Your task to perform on an android device: remove spam from my inbox in the gmail app Image 0: 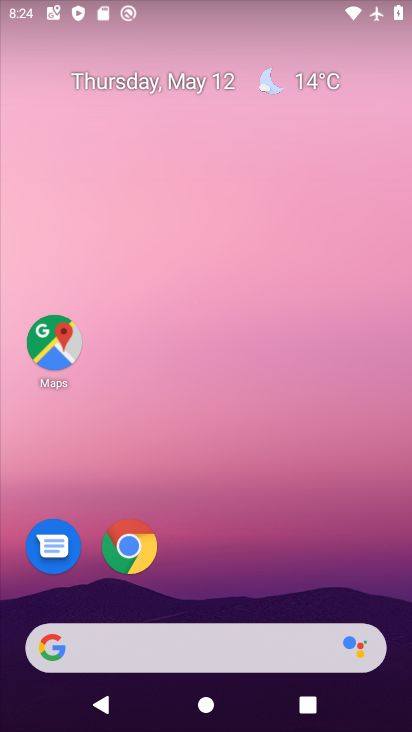
Step 0: drag from (173, 658) to (319, 79)
Your task to perform on an android device: remove spam from my inbox in the gmail app Image 1: 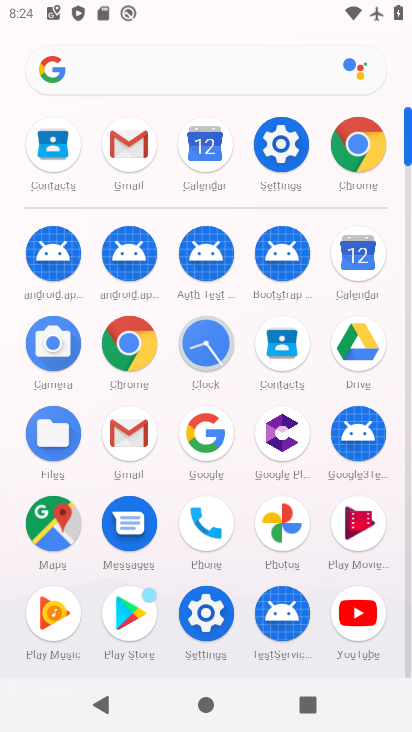
Step 1: click (266, 146)
Your task to perform on an android device: remove spam from my inbox in the gmail app Image 2: 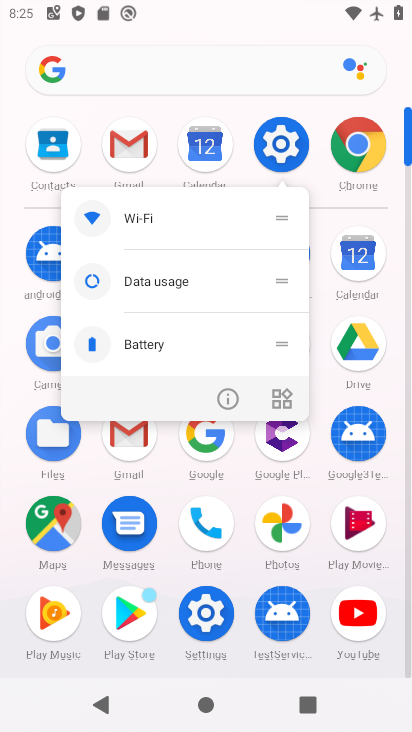
Step 2: click (139, 148)
Your task to perform on an android device: remove spam from my inbox in the gmail app Image 3: 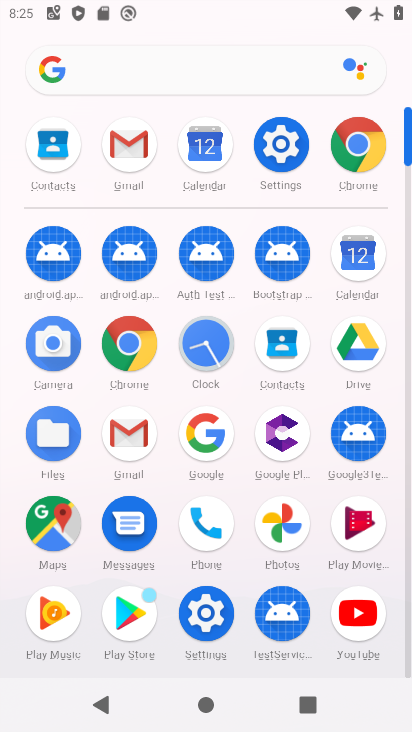
Step 3: click (129, 151)
Your task to perform on an android device: remove spam from my inbox in the gmail app Image 4: 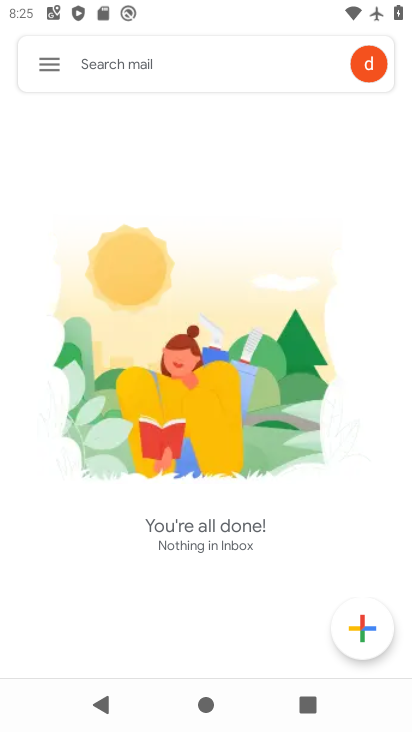
Step 4: click (58, 69)
Your task to perform on an android device: remove spam from my inbox in the gmail app Image 5: 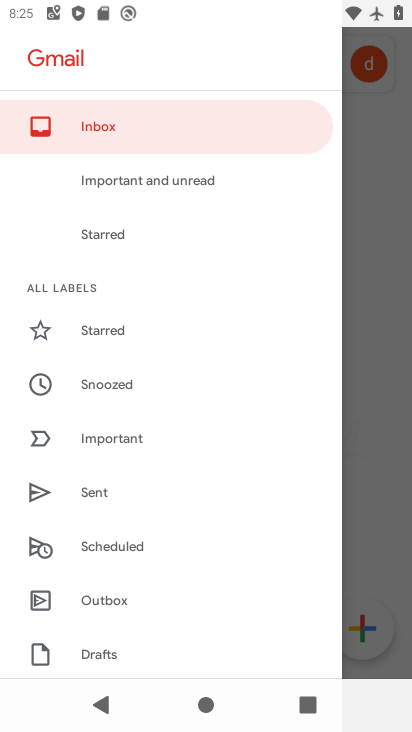
Step 5: drag from (148, 609) to (242, 159)
Your task to perform on an android device: remove spam from my inbox in the gmail app Image 6: 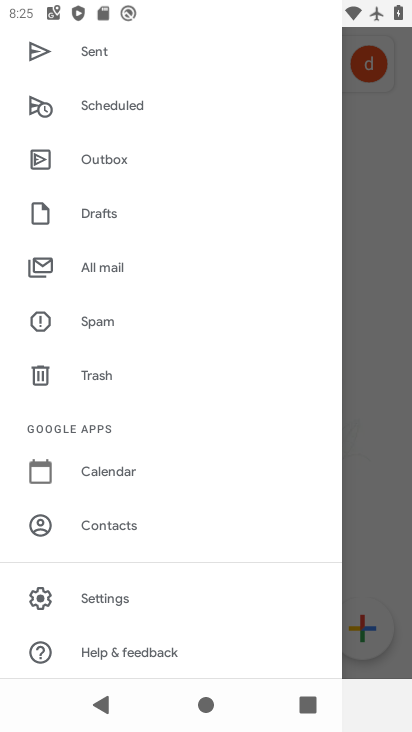
Step 6: click (100, 316)
Your task to perform on an android device: remove spam from my inbox in the gmail app Image 7: 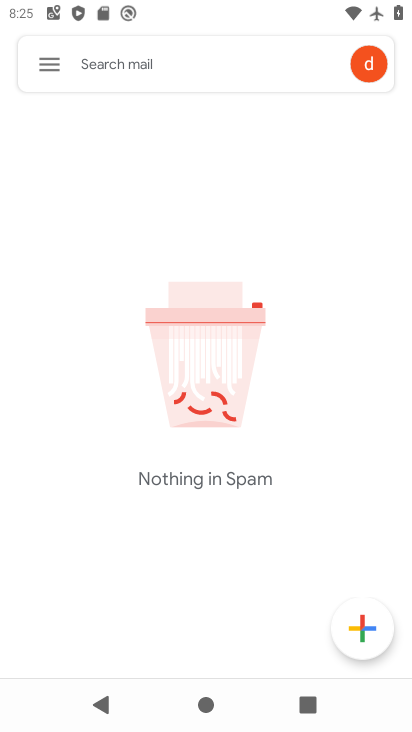
Step 7: task complete